Your task to perform on an android device: Open the Play Movies app and select the watchlist tab. Image 0: 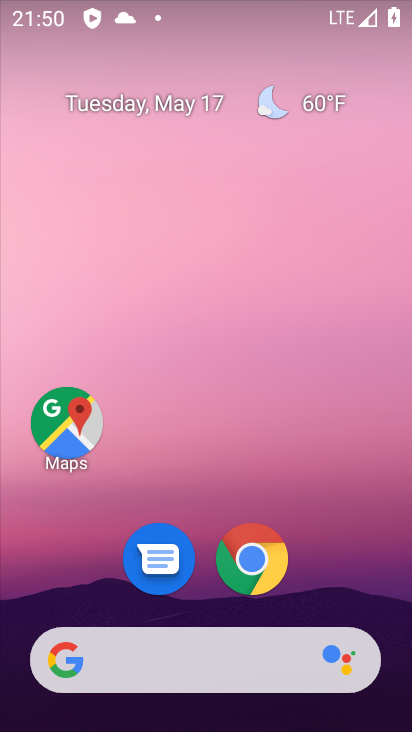
Step 0: drag from (346, 604) to (350, 6)
Your task to perform on an android device: Open the Play Movies app and select the watchlist tab. Image 1: 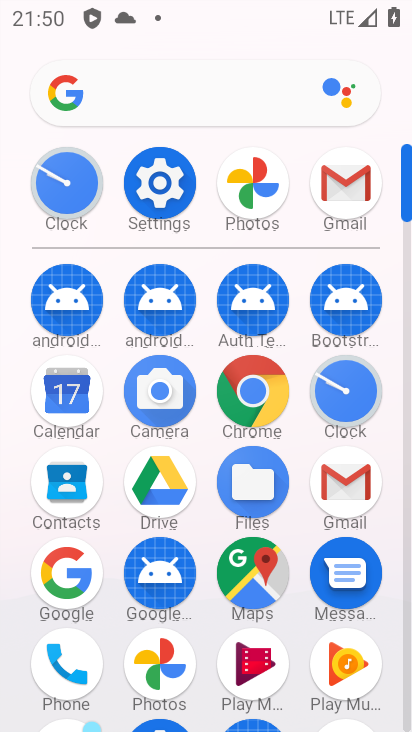
Step 1: drag from (299, 632) to (329, 253)
Your task to perform on an android device: Open the Play Movies app and select the watchlist tab. Image 2: 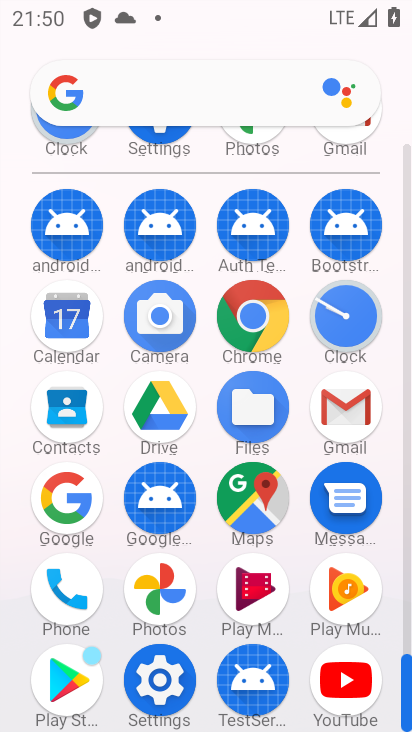
Step 2: click (262, 574)
Your task to perform on an android device: Open the Play Movies app and select the watchlist tab. Image 3: 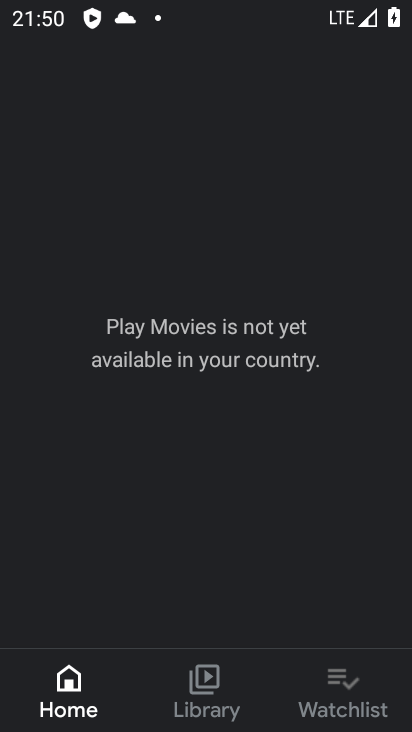
Step 3: click (360, 686)
Your task to perform on an android device: Open the Play Movies app and select the watchlist tab. Image 4: 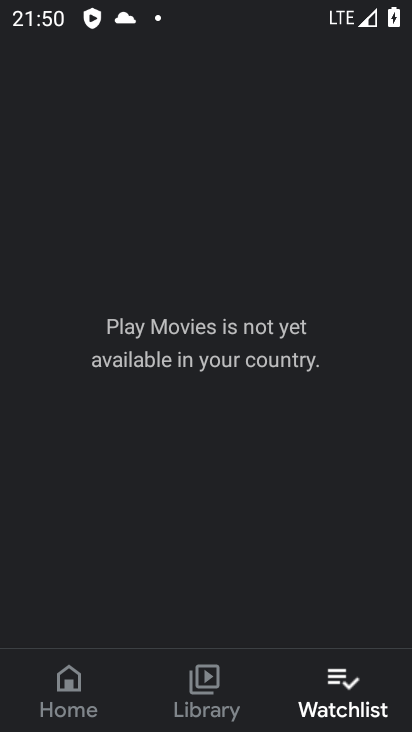
Step 4: task complete